Your task to perform on an android device: add a contact in the contacts app Image 0: 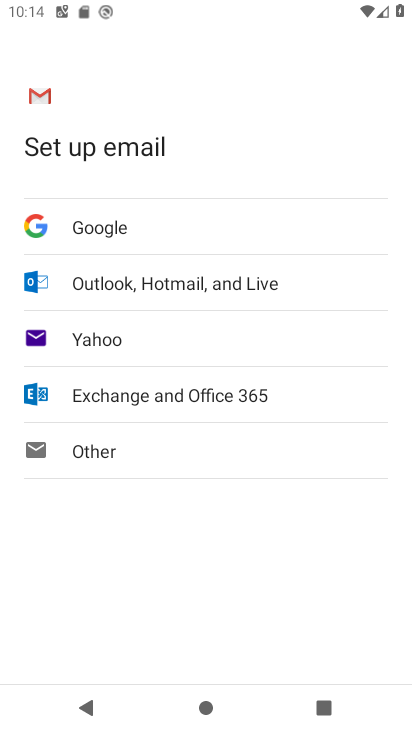
Step 0: press home button
Your task to perform on an android device: add a contact in the contacts app Image 1: 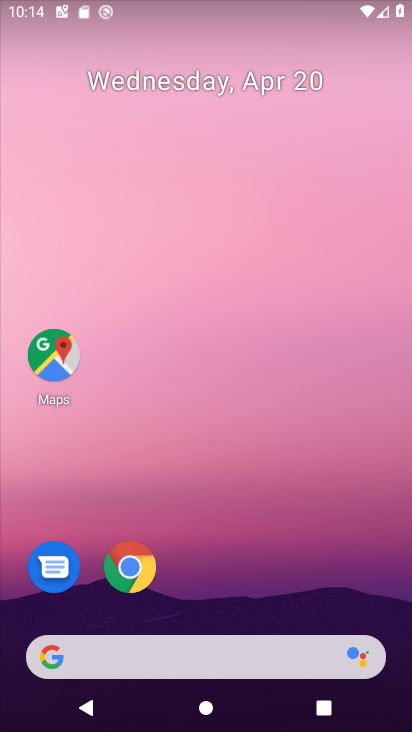
Step 1: drag from (314, 449) to (342, 152)
Your task to perform on an android device: add a contact in the contacts app Image 2: 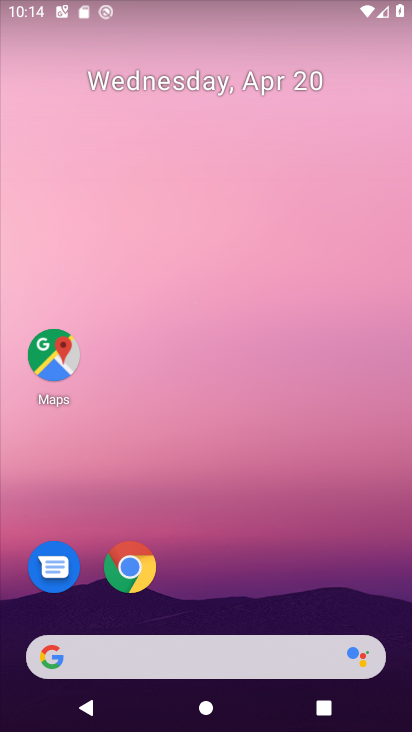
Step 2: drag from (318, 545) to (307, 116)
Your task to perform on an android device: add a contact in the contacts app Image 3: 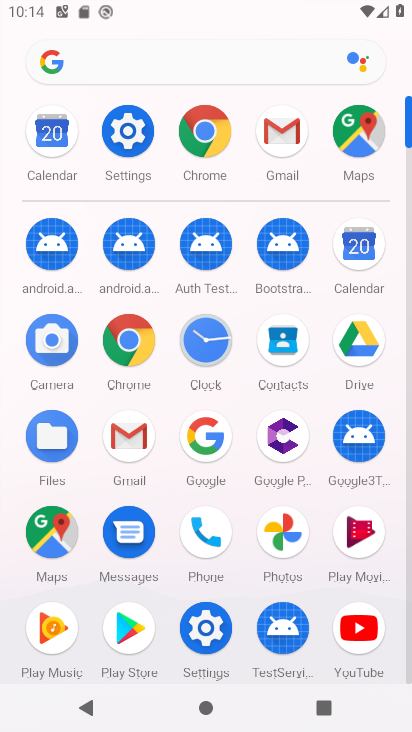
Step 3: click (286, 354)
Your task to perform on an android device: add a contact in the contacts app Image 4: 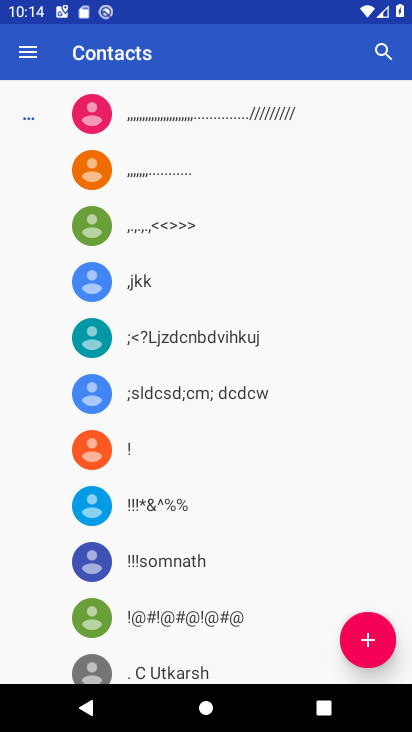
Step 4: click (384, 647)
Your task to perform on an android device: add a contact in the contacts app Image 5: 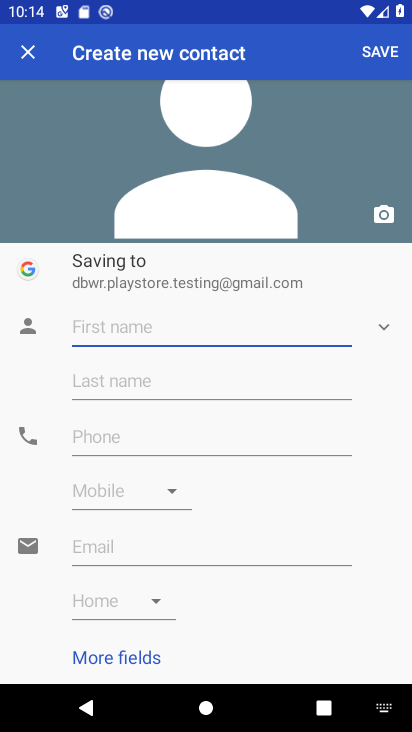
Step 5: type "my life"
Your task to perform on an android device: add a contact in the contacts app Image 6: 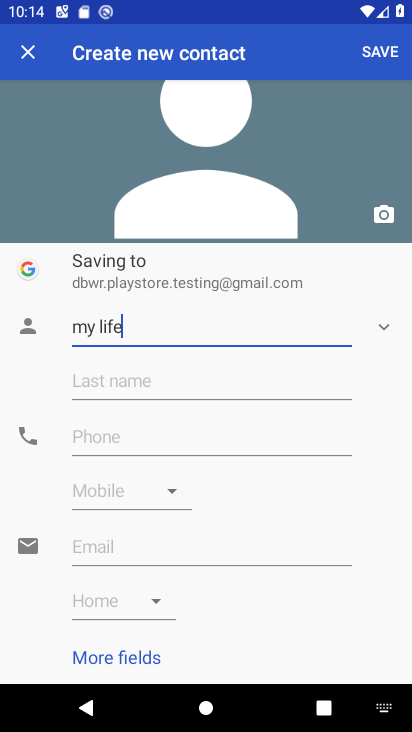
Step 6: click (282, 433)
Your task to perform on an android device: add a contact in the contacts app Image 7: 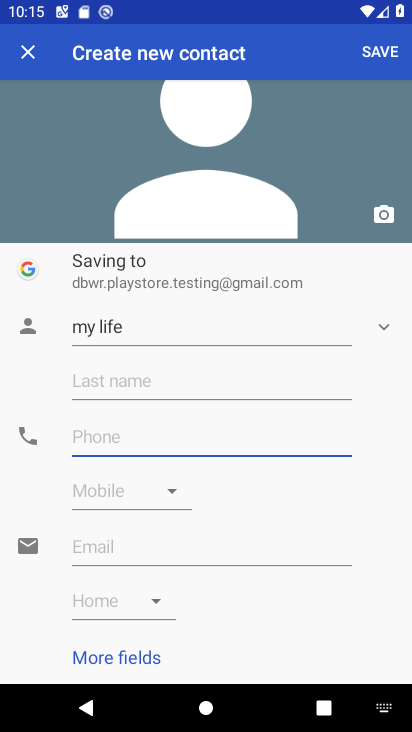
Step 7: type "1234567890"
Your task to perform on an android device: add a contact in the contacts app Image 8: 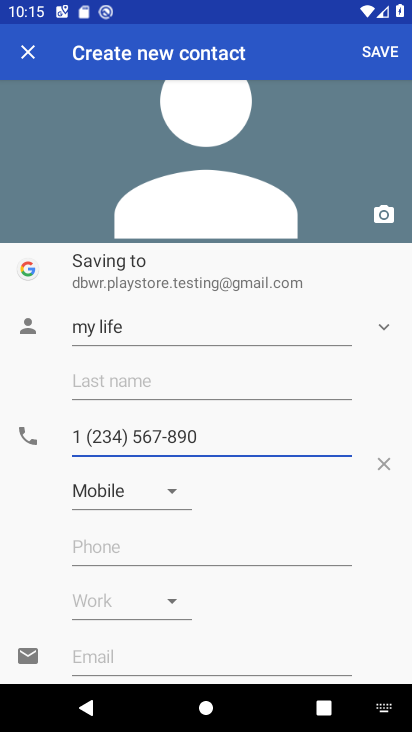
Step 8: click (379, 50)
Your task to perform on an android device: add a contact in the contacts app Image 9: 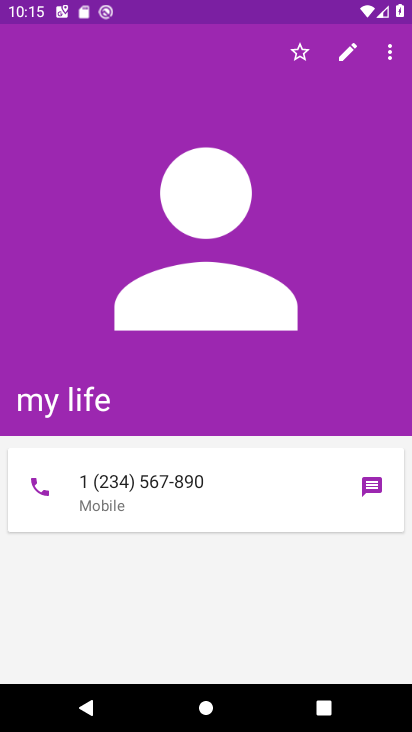
Step 9: task complete